Your task to perform on an android device: Go to display settings Image 0: 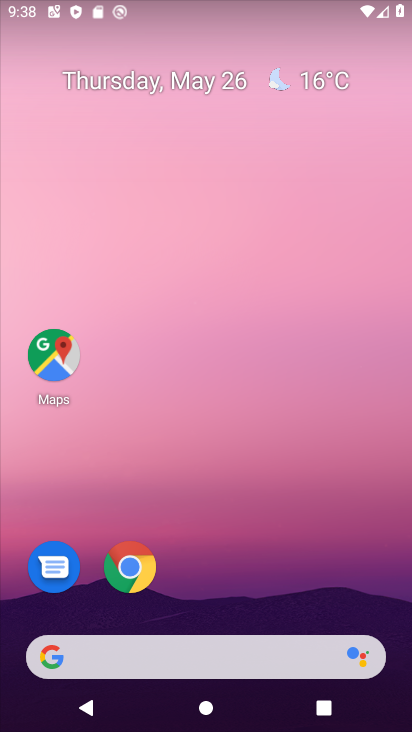
Step 0: drag from (382, 673) to (352, 126)
Your task to perform on an android device: Go to display settings Image 1: 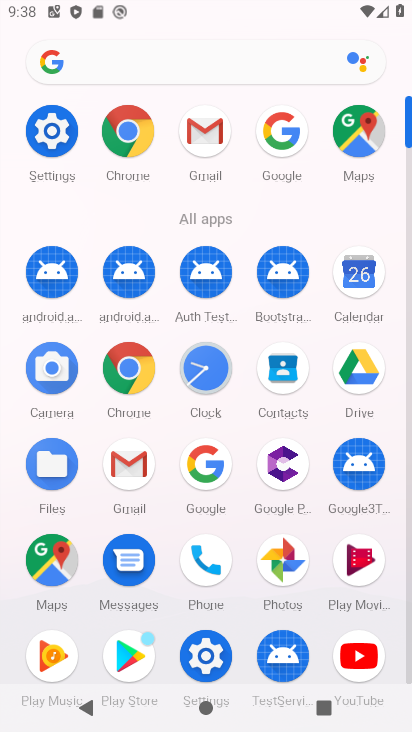
Step 1: click (48, 129)
Your task to perform on an android device: Go to display settings Image 2: 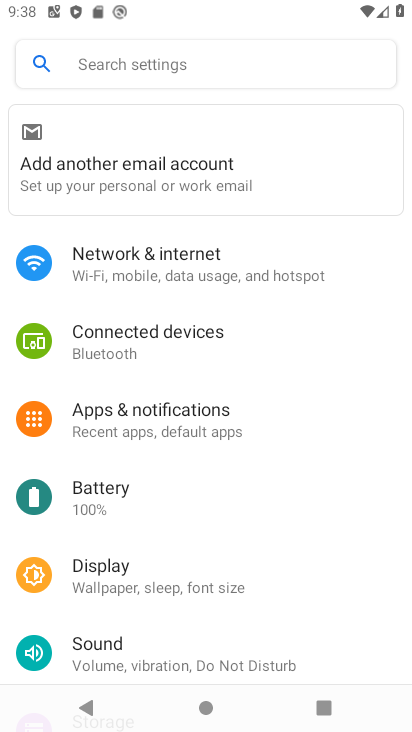
Step 2: click (96, 574)
Your task to perform on an android device: Go to display settings Image 3: 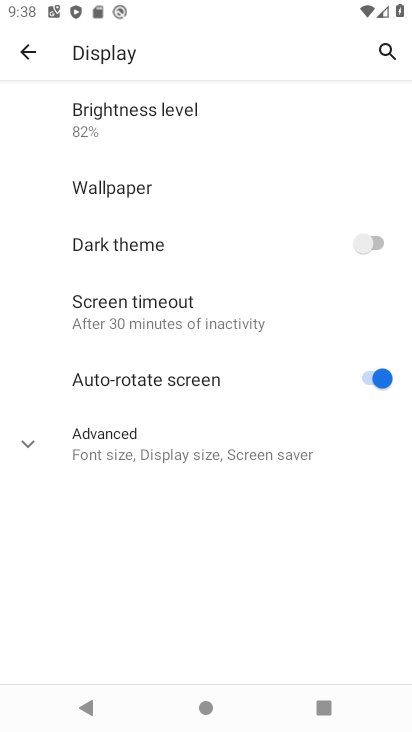
Step 3: task complete